Your task to perform on an android device: Open sound settings Image 0: 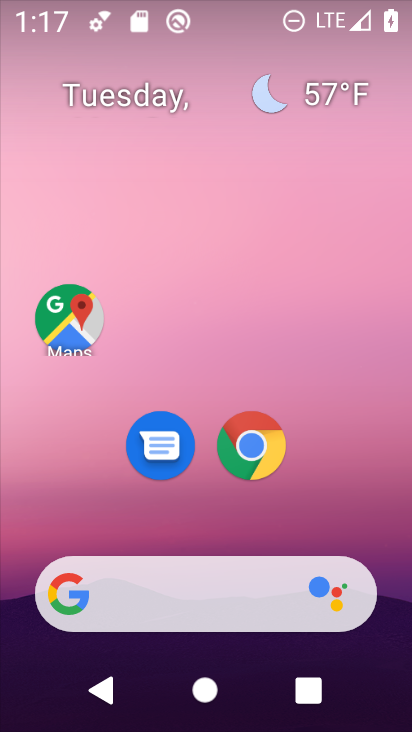
Step 0: drag from (403, 550) to (399, 232)
Your task to perform on an android device: Open sound settings Image 1: 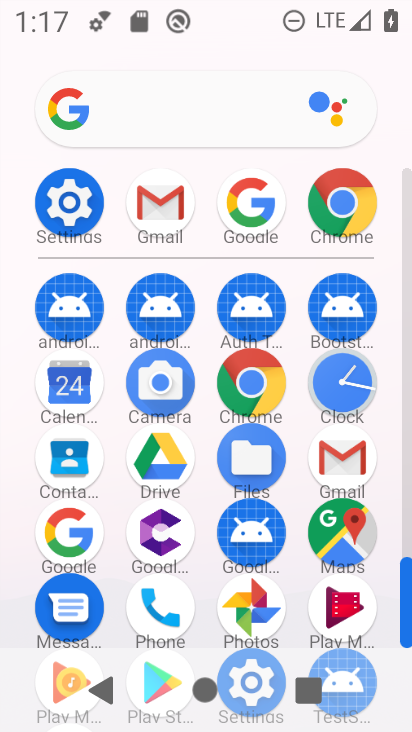
Step 1: drag from (387, 677) to (405, 343)
Your task to perform on an android device: Open sound settings Image 2: 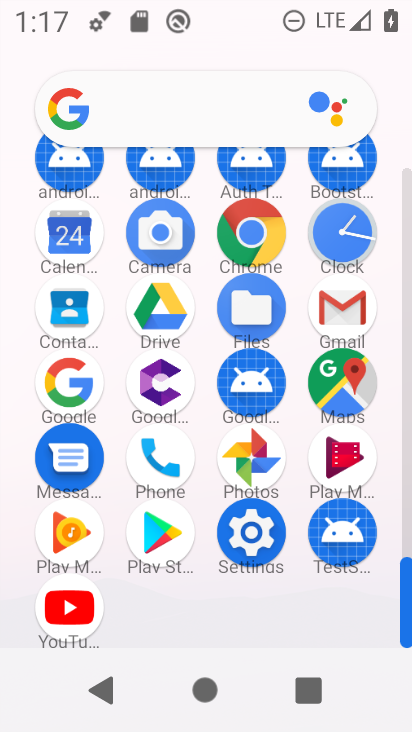
Step 2: click (255, 541)
Your task to perform on an android device: Open sound settings Image 3: 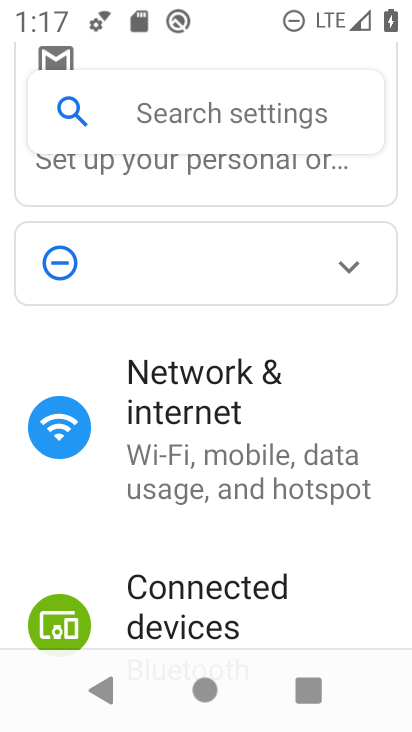
Step 3: drag from (374, 613) to (368, 516)
Your task to perform on an android device: Open sound settings Image 4: 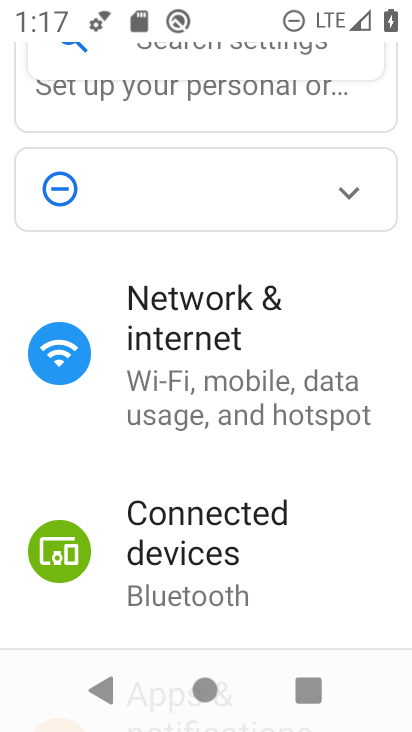
Step 4: drag from (370, 628) to (357, 475)
Your task to perform on an android device: Open sound settings Image 5: 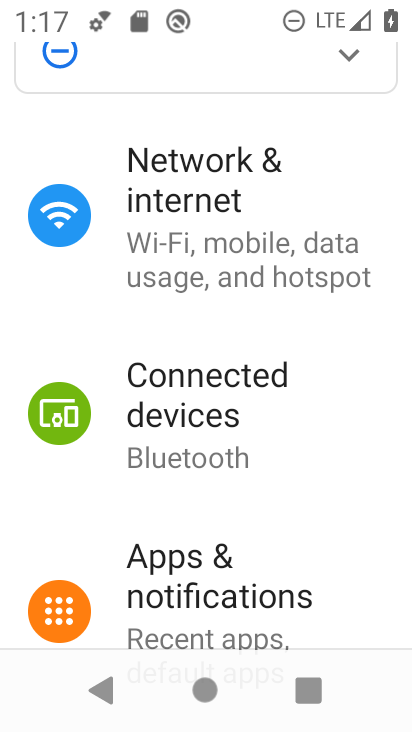
Step 5: drag from (366, 617) to (374, 493)
Your task to perform on an android device: Open sound settings Image 6: 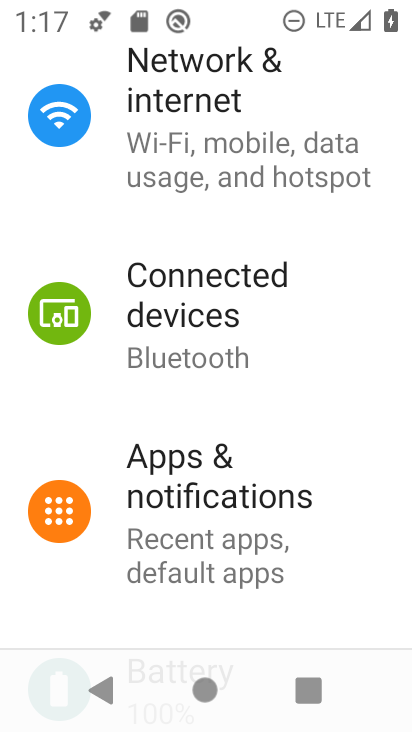
Step 6: drag from (353, 601) to (360, 490)
Your task to perform on an android device: Open sound settings Image 7: 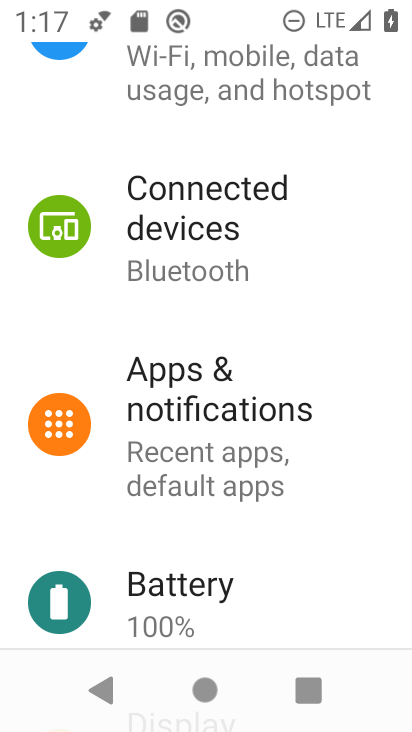
Step 7: drag from (349, 622) to (360, 500)
Your task to perform on an android device: Open sound settings Image 8: 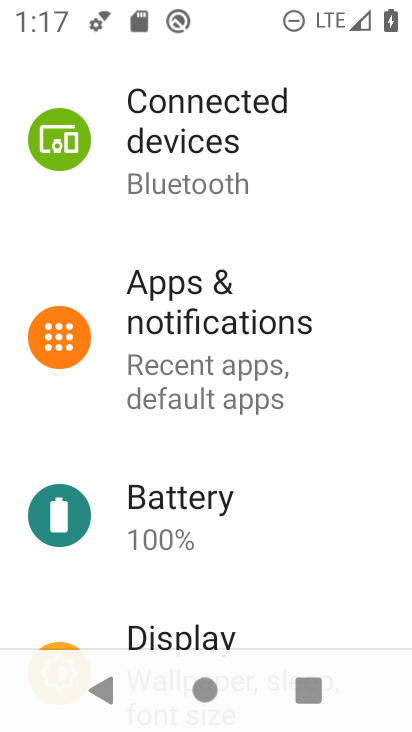
Step 8: drag from (349, 610) to (343, 481)
Your task to perform on an android device: Open sound settings Image 9: 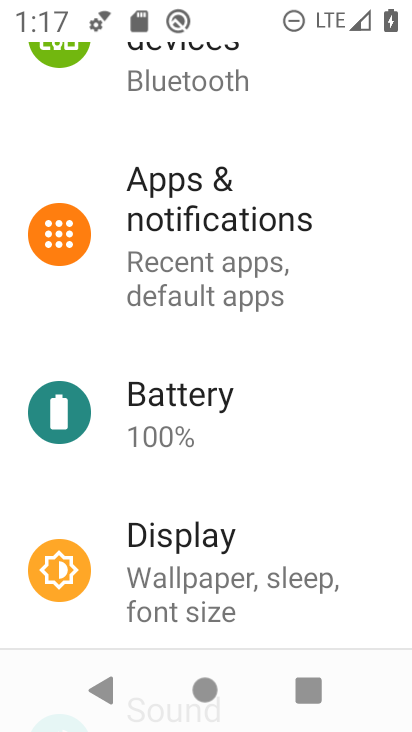
Step 9: drag from (354, 610) to (352, 484)
Your task to perform on an android device: Open sound settings Image 10: 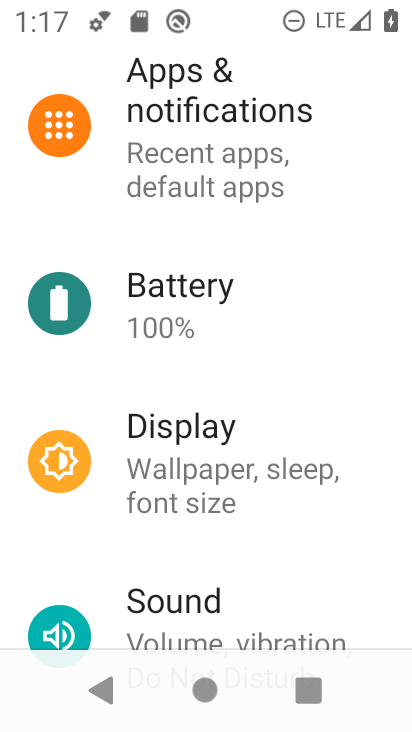
Step 10: drag from (337, 595) to (342, 467)
Your task to perform on an android device: Open sound settings Image 11: 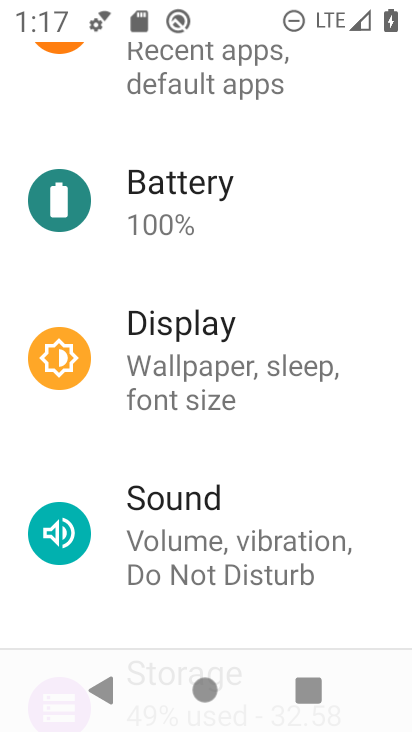
Step 11: click (276, 550)
Your task to perform on an android device: Open sound settings Image 12: 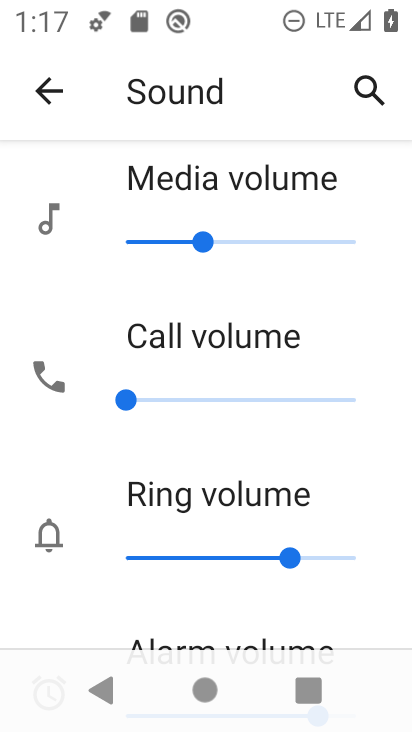
Step 12: task complete